Your task to perform on an android device: Open Wikipedia Image 0: 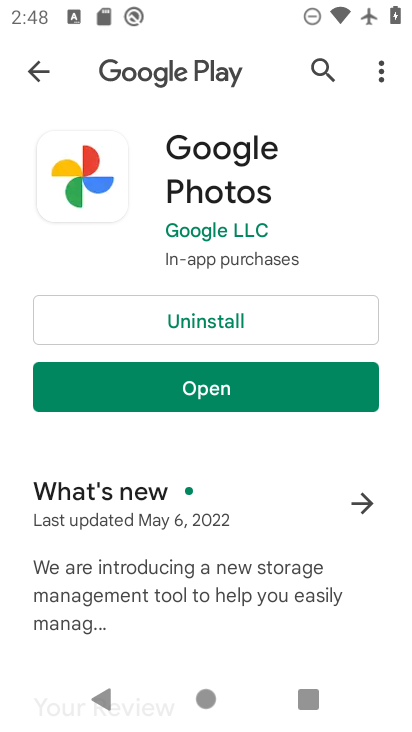
Step 0: press home button
Your task to perform on an android device: Open Wikipedia Image 1: 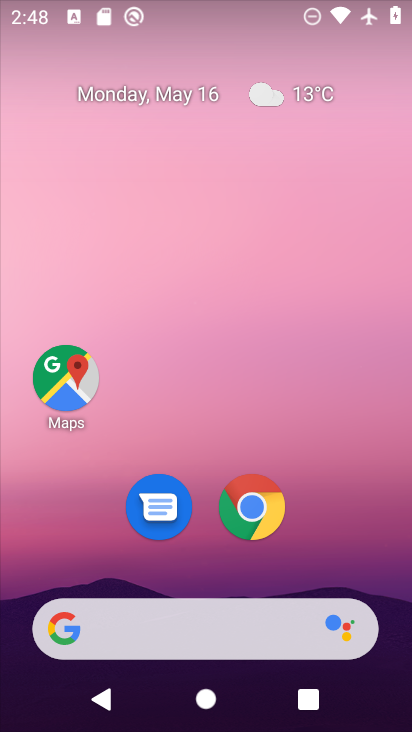
Step 1: drag from (332, 524) to (212, 154)
Your task to perform on an android device: Open Wikipedia Image 2: 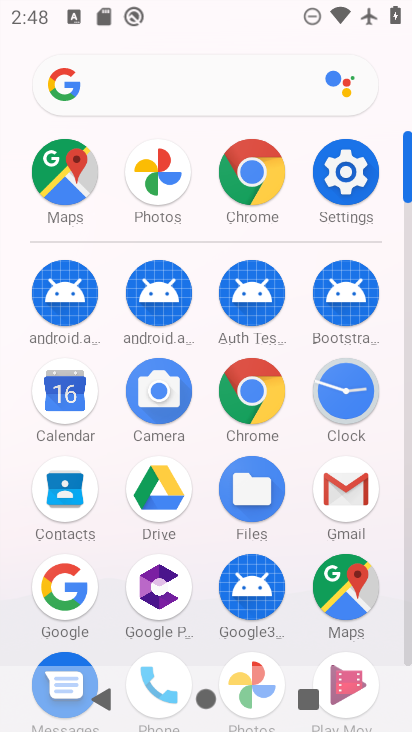
Step 2: click (250, 401)
Your task to perform on an android device: Open Wikipedia Image 3: 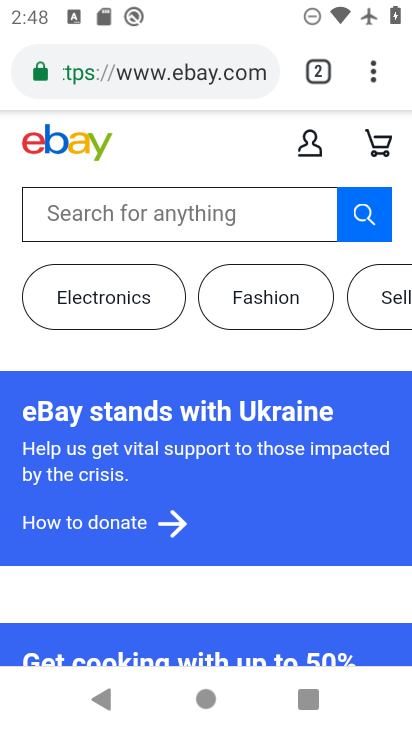
Step 3: click (322, 76)
Your task to perform on an android device: Open Wikipedia Image 4: 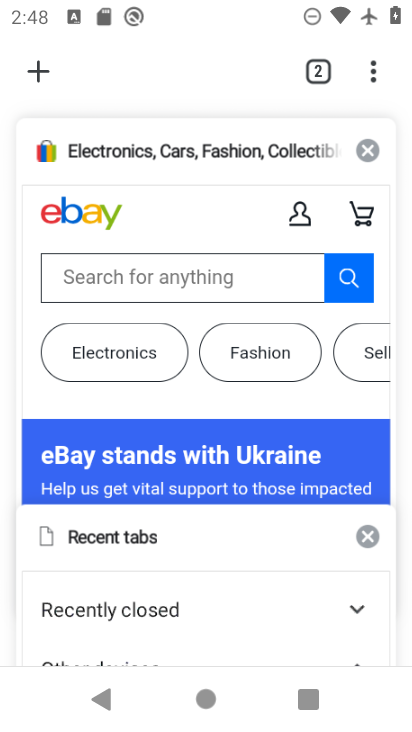
Step 4: click (46, 73)
Your task to perform on an android device: Open Wikipedia Image 5: 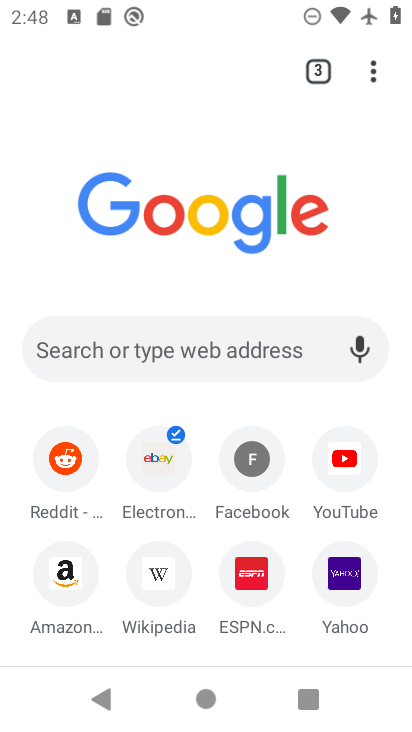
Step 5: click (169, 579)
Your task to perform on an android device: Open Wikipedia Image 6: 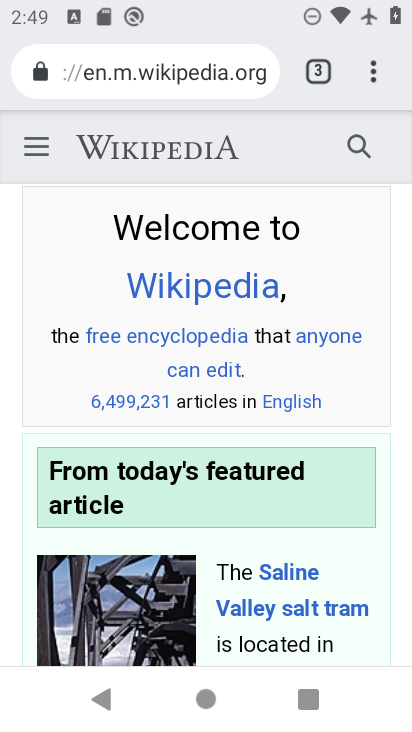
Step 6: task complete